Your task to perform on an android device: snooze an email in the gmail app Image 0: 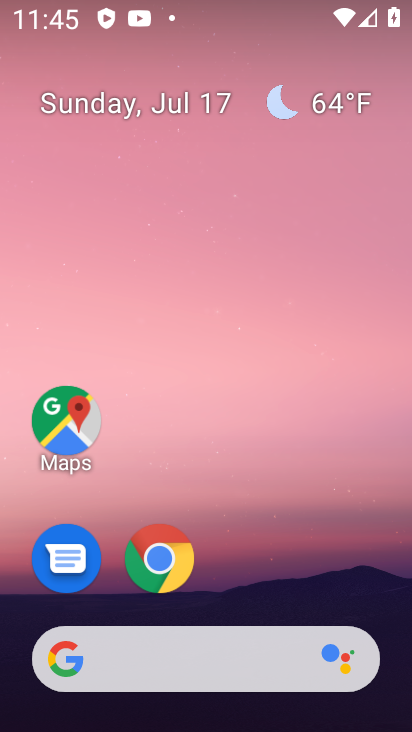
Step 0: drag from (359, 561) to (375, 152)
Your task to perform on an android device: snooze an email in the gmail app Image 1: 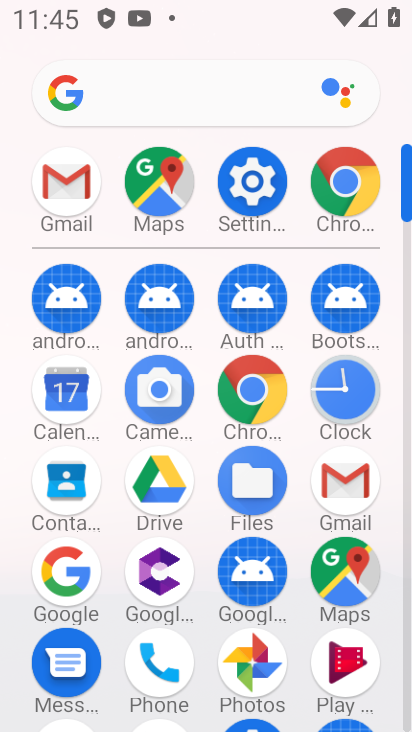
Step 1: click (357, 478)
Your task to perform on an android device: snooze an email in the gmail app Image 2: 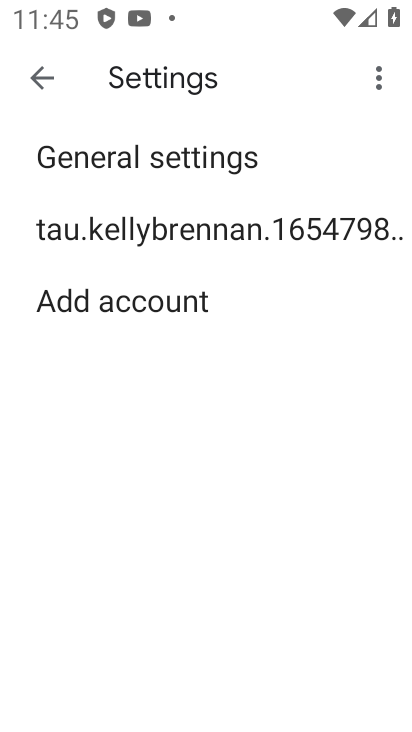
Step 2: press back button
Your task to perform on an android device: snooze an email in the gmail app Image 3: 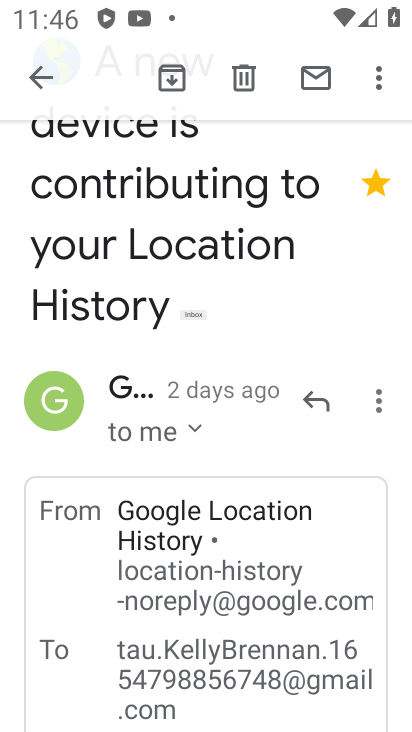
Step 3: press back button
Your task to perform on an android device: snooze an email in the gmail app Image 4: 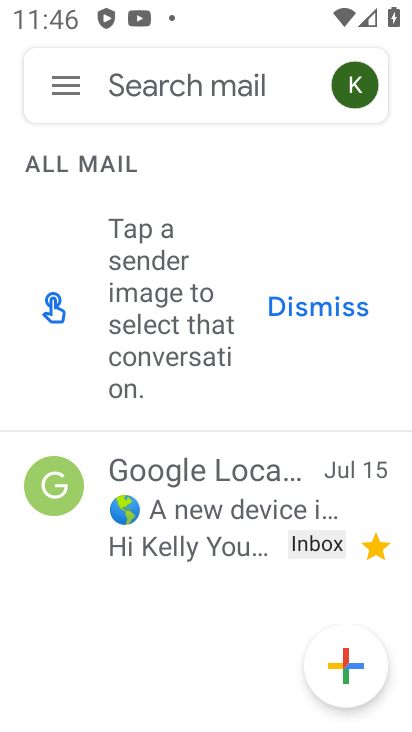
Step 4: click (74, 83)
Your task to perform on an android device: snooze an email in the gmail app Image 5: 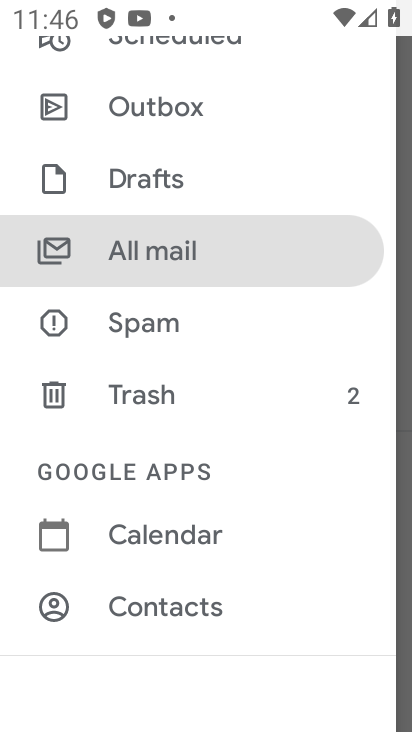
Step 5: drag from (259, 327) to (268, 419)
Your task to perform on an android device: snooze an email in the gmail app Image 6: 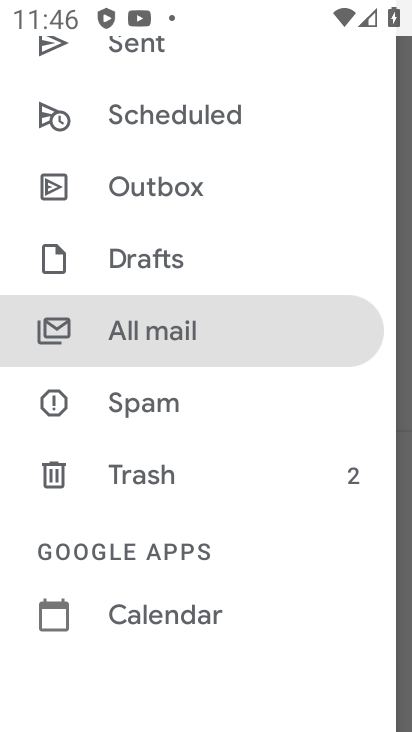
Step 6: drag from (273, 314) to (278, 423)
Your task to perform on an android device: snooze an email in the gmail app Image 7: 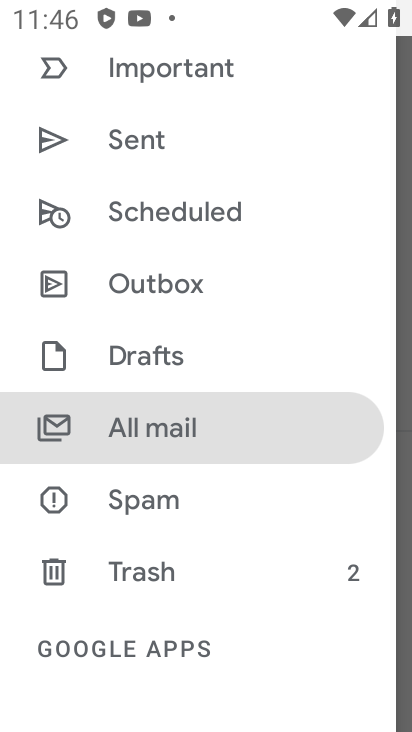
Step 7: drag from (275, 269) to (275, 375)
Your task to perform on an android device: snooze an email in the gmail app Image 8: 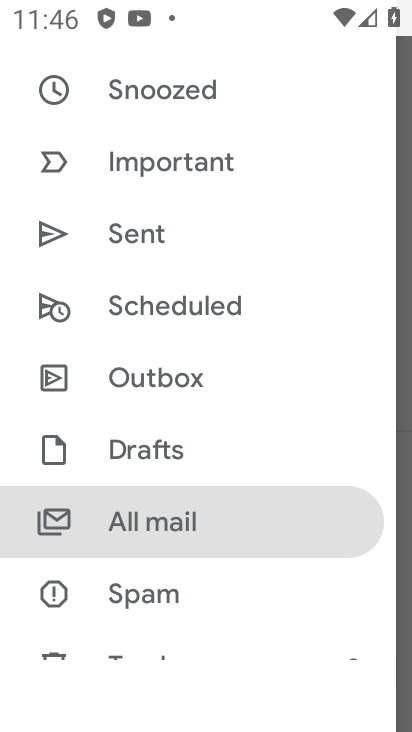
Step 8: drag from (279, 266) to (280, 386)
Your task to perform on an android device: snooze an email in the gmail app Image 9: 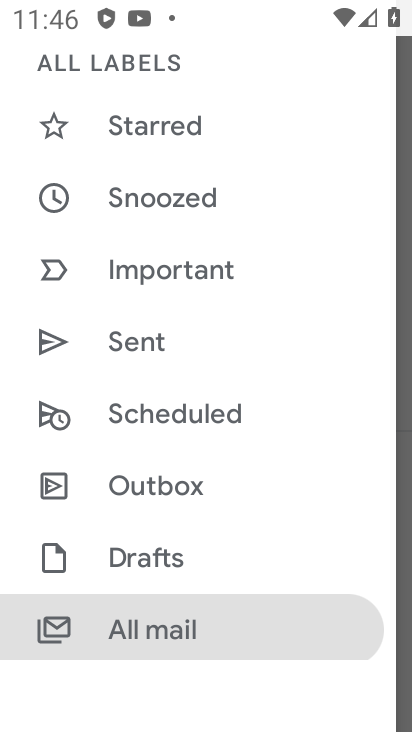
Step 9: drag from (274, 228) to (271, 355)
Your task to perform on an android device: snooze an email in the gmail app Image 10: 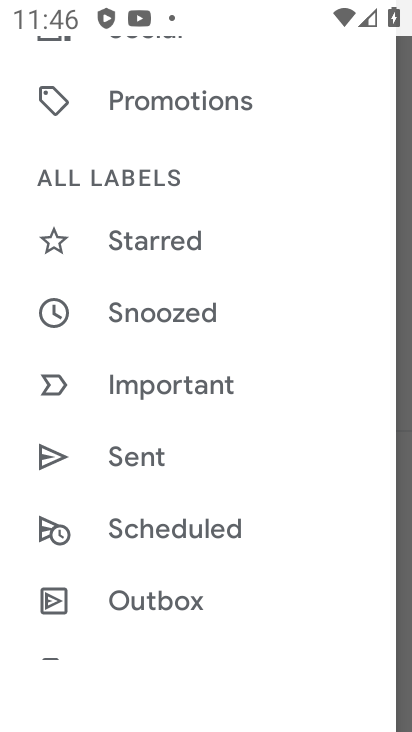
Step 10: drag from (269, 212) to (272, 327)
Your task to perform on an android device: snooze an email in the gmail app Image 11: 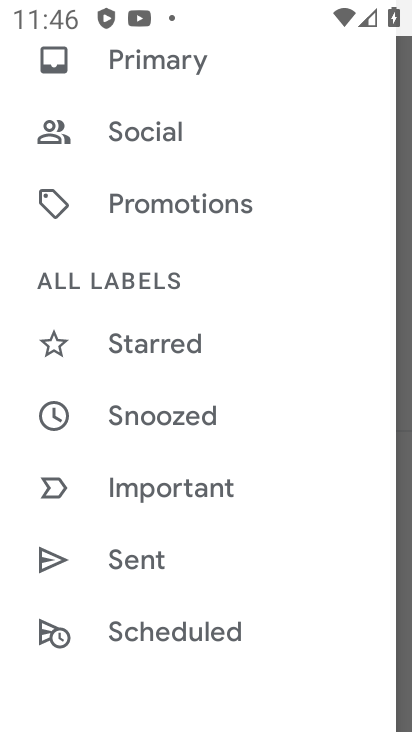
Step 11: click (220, 423)
Your task to perform on an android device: snooze an email in the gmail app Image 12: 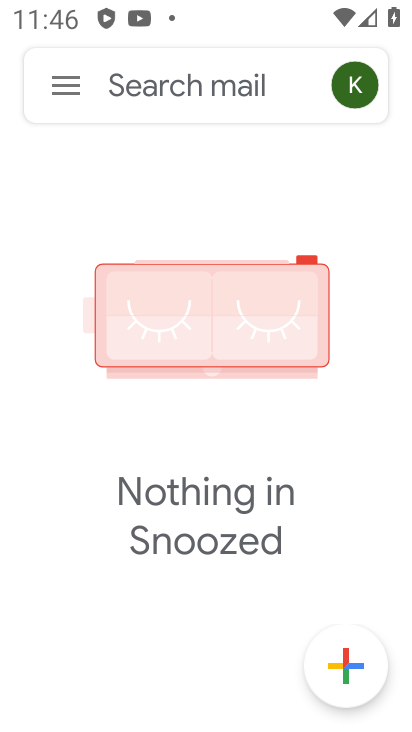
Step 12: task complete